Your task to perform on an android device: set the stopwatch Image 0: 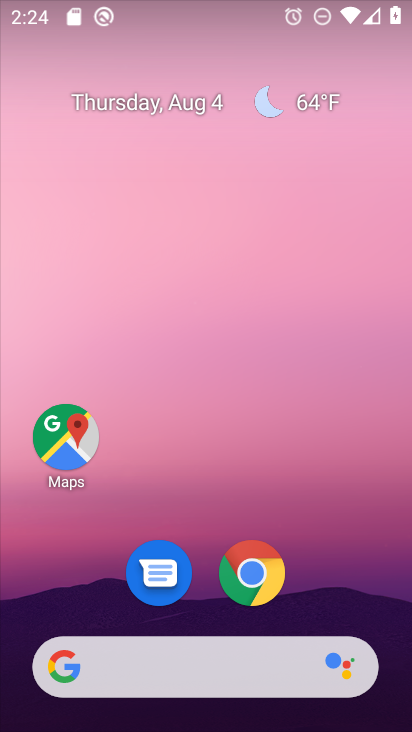
Step 0: drag from (348, 551) to (325, 86)
Your task to perform on an android device: set the stopwatch Image 1: 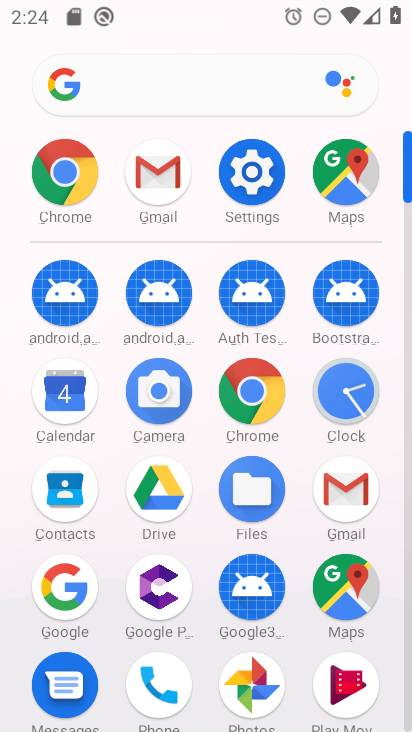
Step 1: click (352, 386)
Your task to perform on an android device: set the stopwatch Image 2: 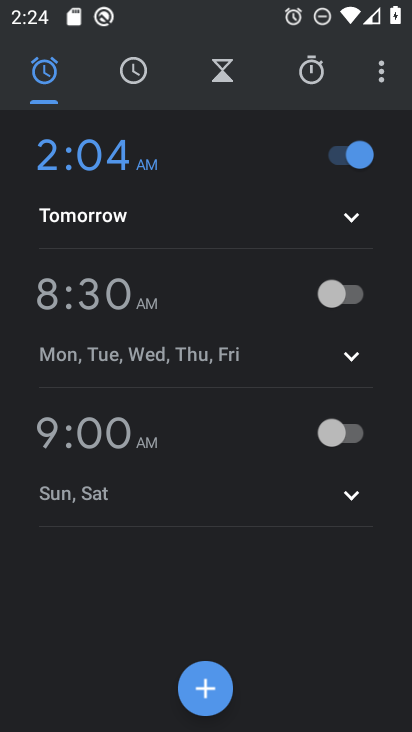
Step 2: click (323, 66)
Your task to perform on an android device: set the stopwatch Image 3: 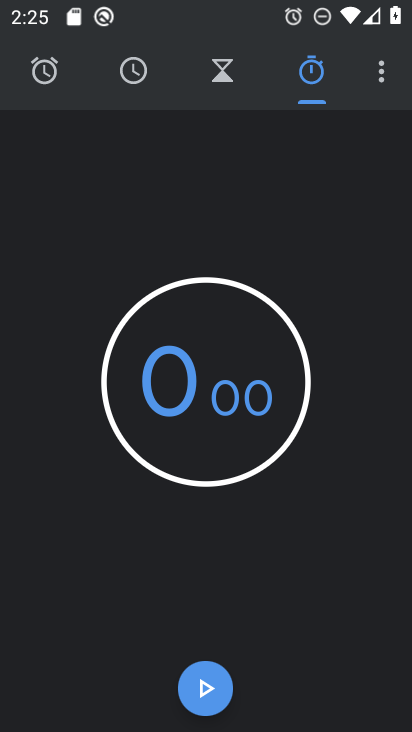
Step 3: click (205, 700)
Your task to perform on an android device: set the stopwatch Image 4: 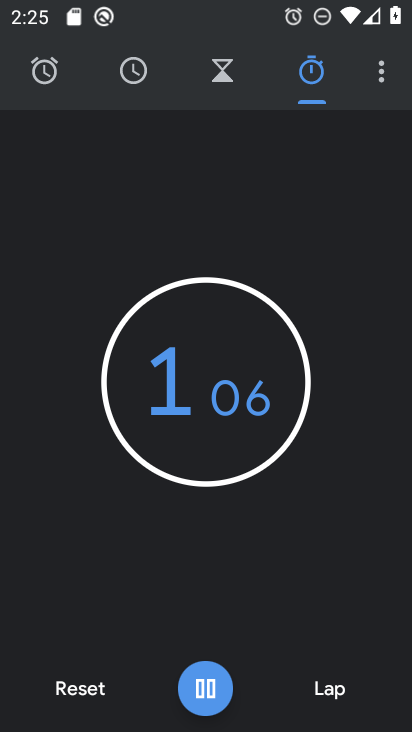
Step 4: click (205, 700)
Your task to perform on an android device: set the stopwatch Image 5: 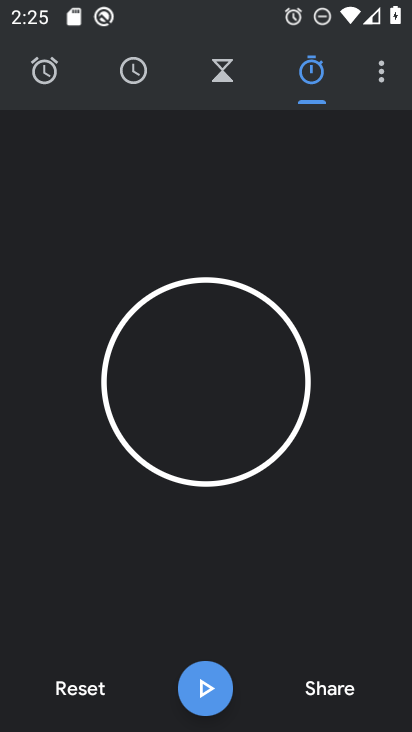
Step 5: task complete